Your task to perform on an android device: snooze an email in the gmail app Image 0: 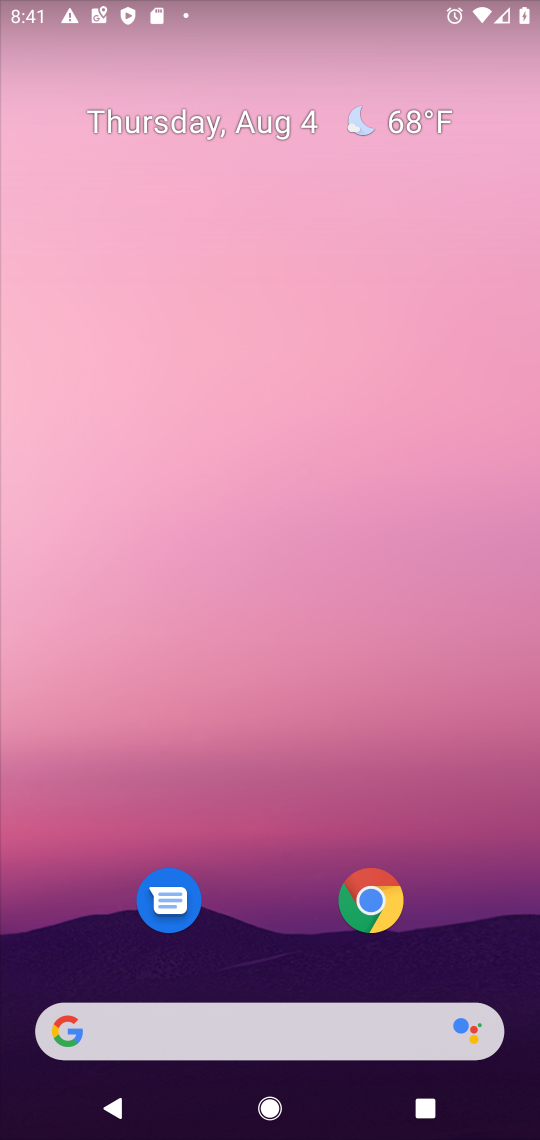
Step 0: drag from (249, 1028) to (262, 75)
Your task to perform on an android device: snooze an email in the gmail app Image 1: 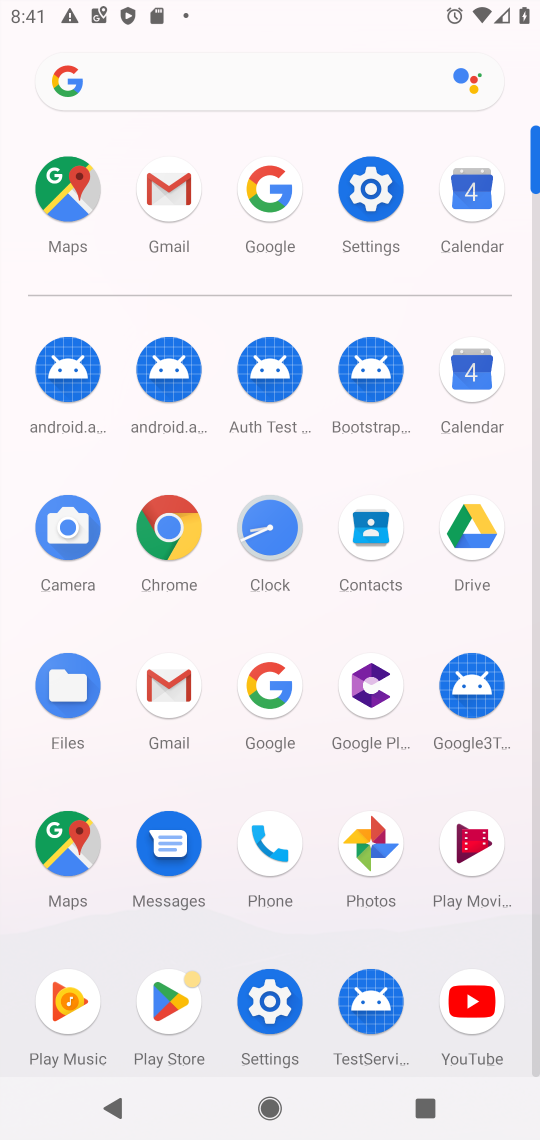
Step 1: click (169, 188)
Your task to perform on an android device: snooze an email in the gmail app Image 2: 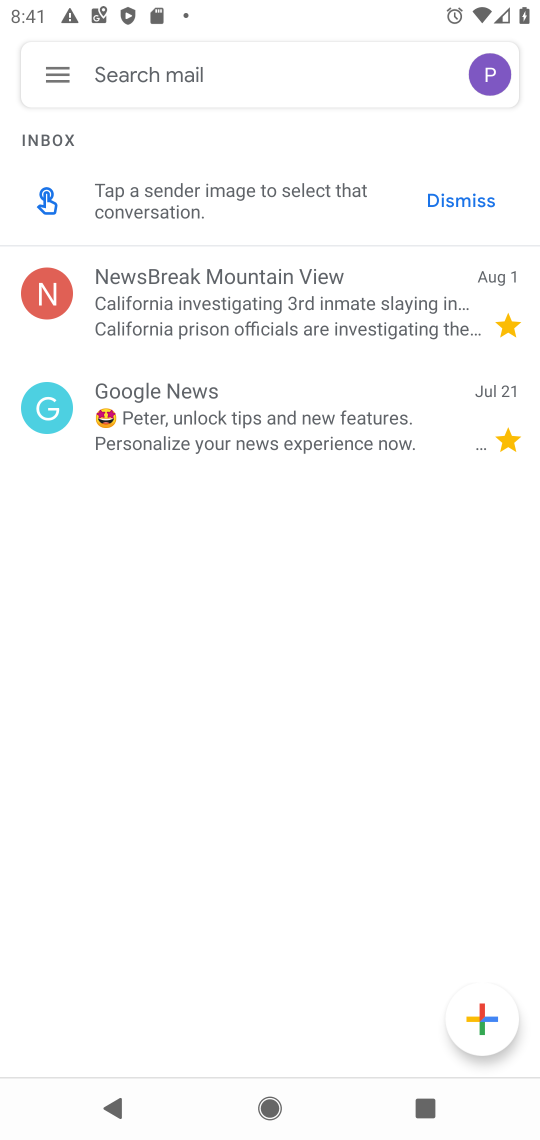
Step 2: click (299, 323)
Your task to perform on an android device: snooze an email in the gmail app Image 3: 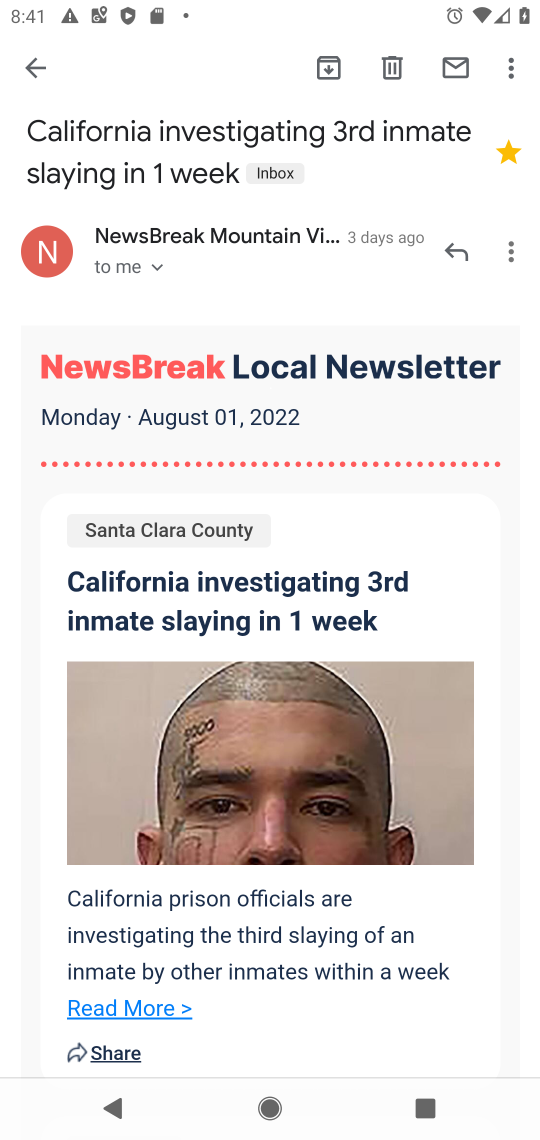
Step 3: click (514, 71)
Your task to perform on an android device: snooze an email in the gmail app Image 4: 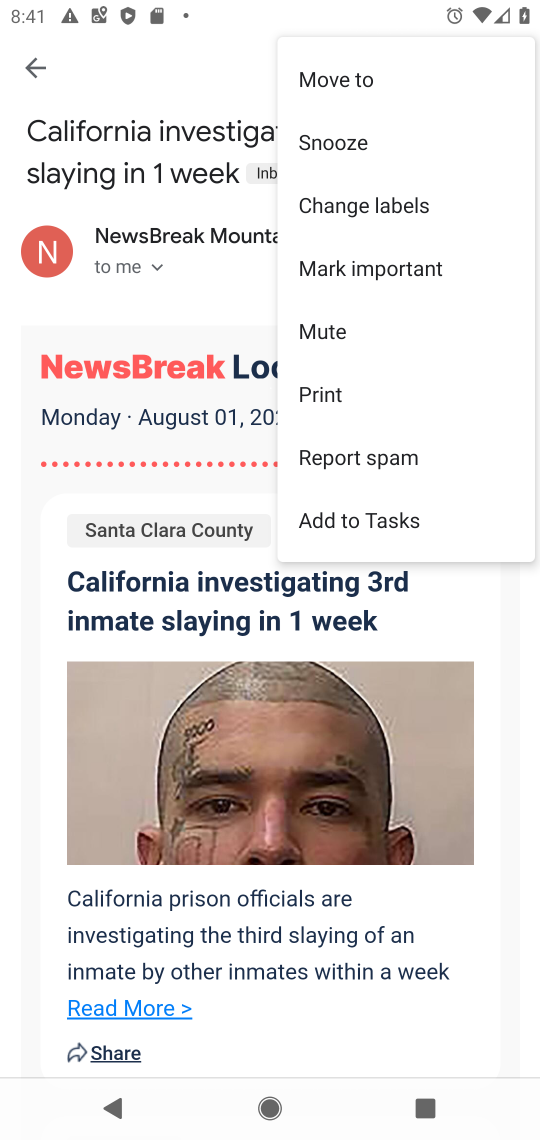
Step 4: click (341, 139)
Your task to perform on an android device: snooze an email in the gmail app Image 5: 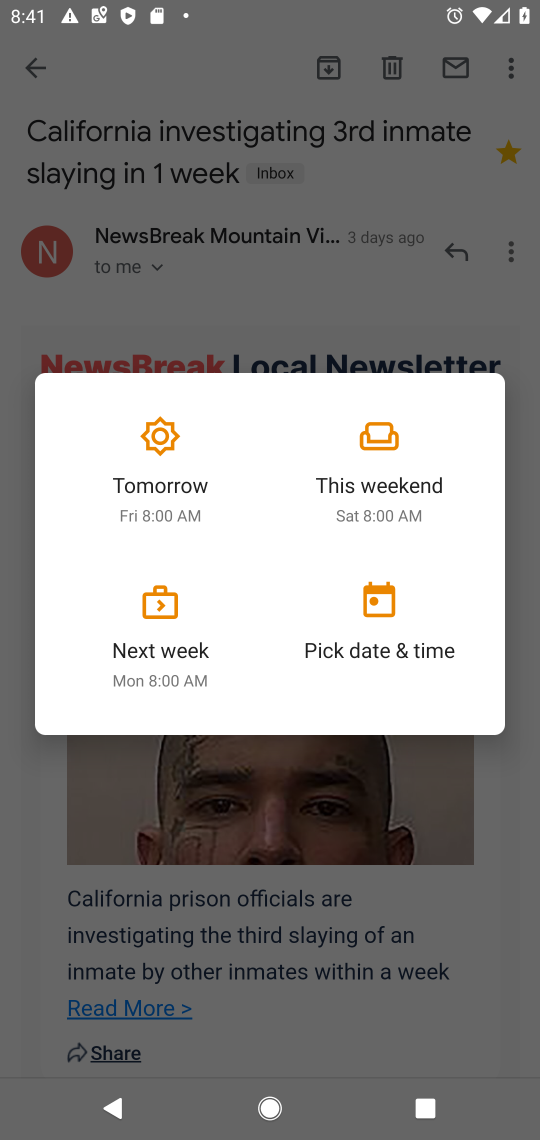
Step 5: click (161, 464)
Your task to perform on an android device: snooze an email in the gmail app Image 6: 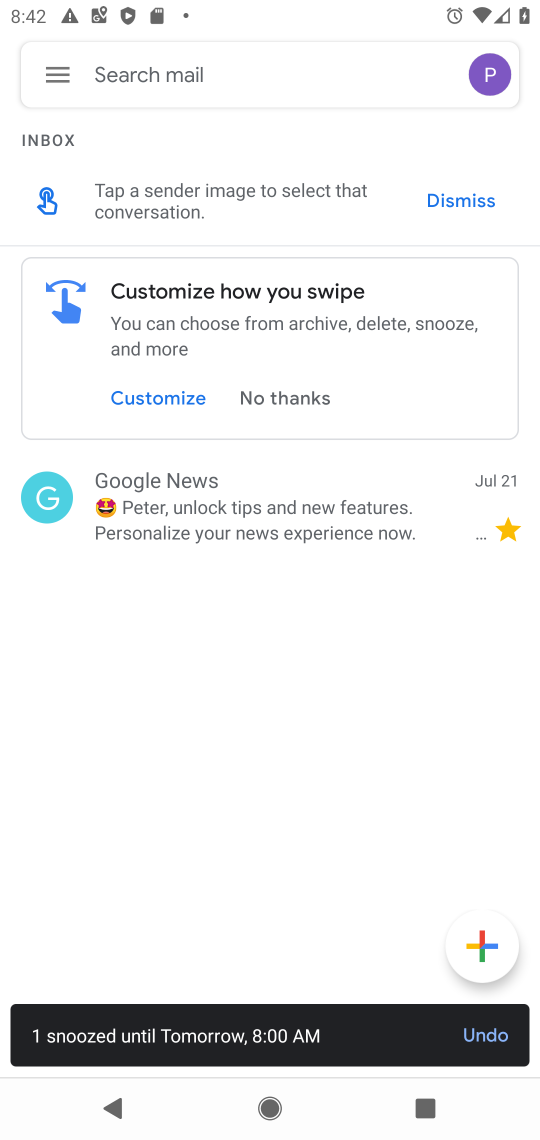
Step 6: task complete